Your task to perform on an android device: Open Google Image 0: 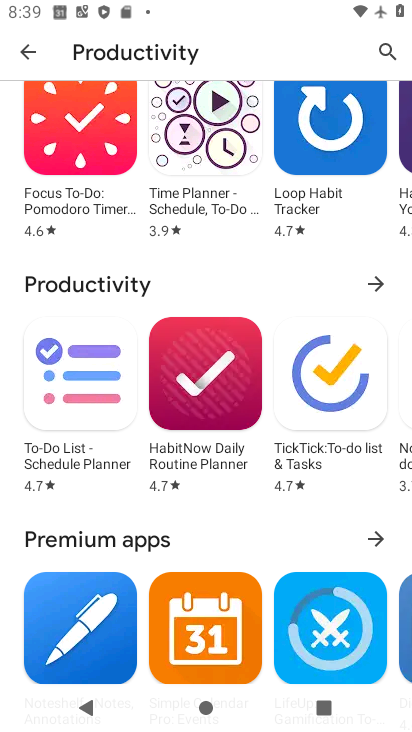
Step 0: press home button
Your task to perform on an android device: Open Google Image 1: 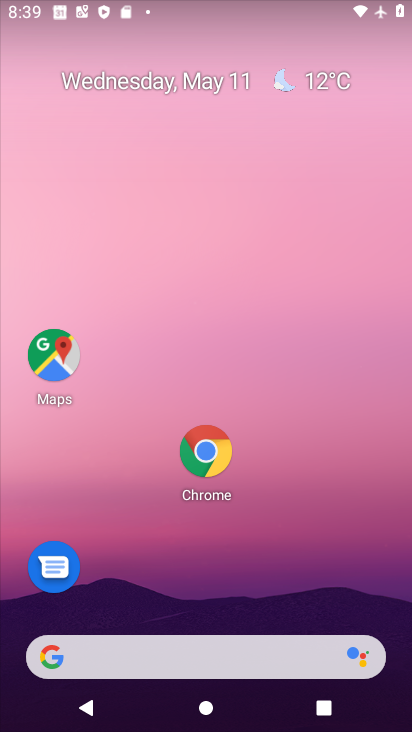
Step 1: drag from (189, 661) to (336, 162)
Your task to perform on an android device: Open Google Image 2: 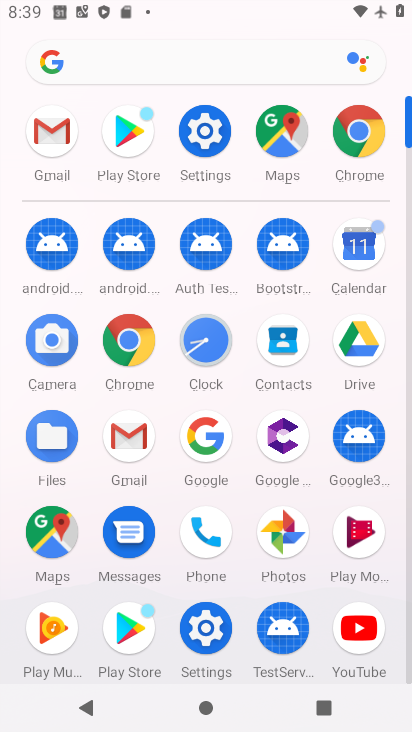
Step 2: click (193, 440)
Your task to perform on an android device: Open Google Image 3: 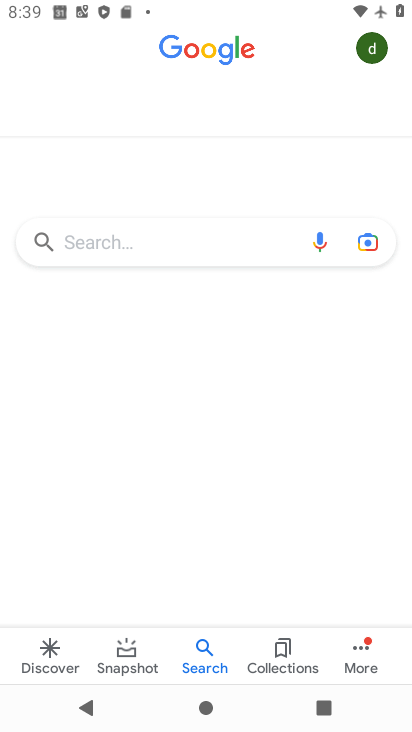
Step 3: task complete